Your task to perform on an android device: delete a single message in the gmail app Image 0: 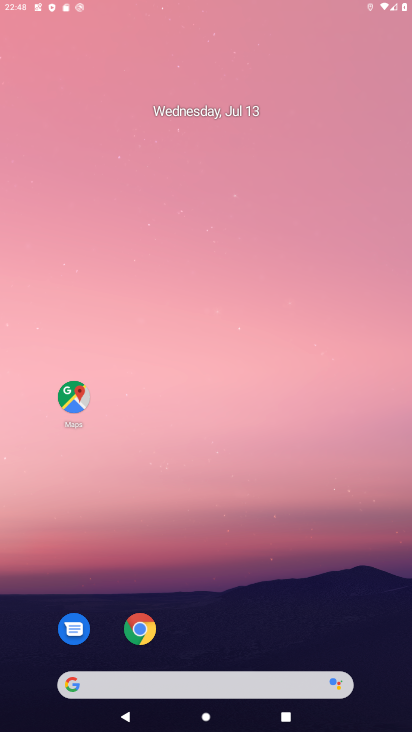
Step 0: press home button
Your task to perform on an android device: delete a single message in the gmail app Image 1: 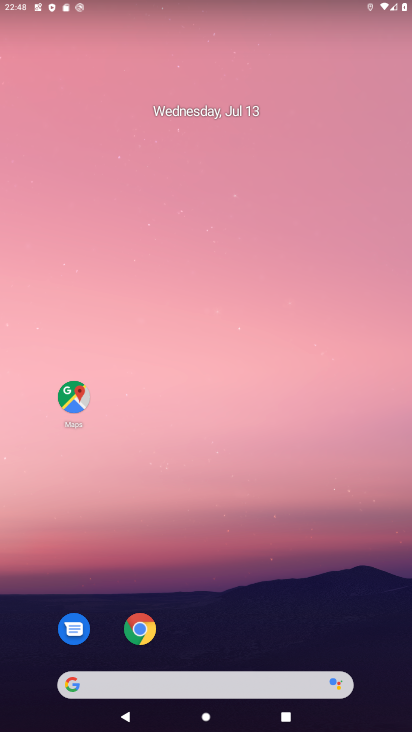
Step 1: drag from (215, 648) to (250, 76)
Your task to perform on an android device: delete a single message in the gmail app Image 2: 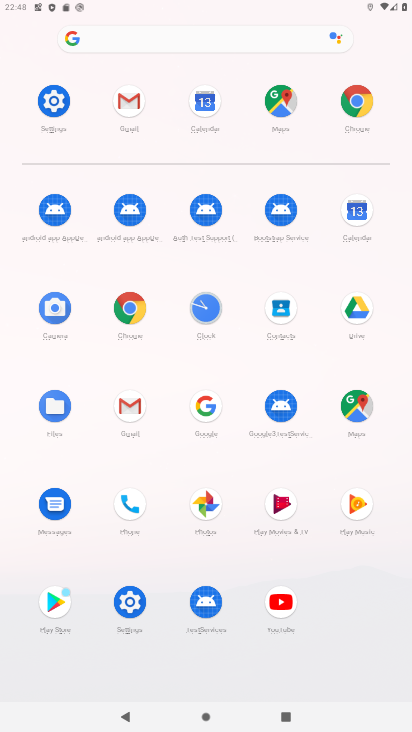
Step 2: click (125, 95)
Your task to perform on an android device: delete a single message in the gmail app Image 3: 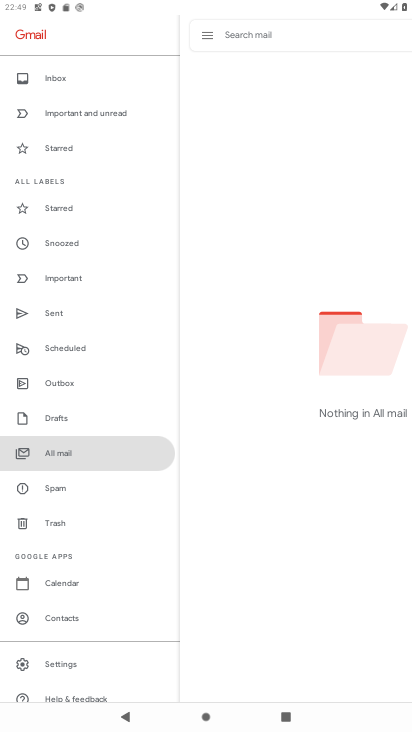
Step 3: task complete